Your task to perform on an android device: toggle airplane mode Image 0: 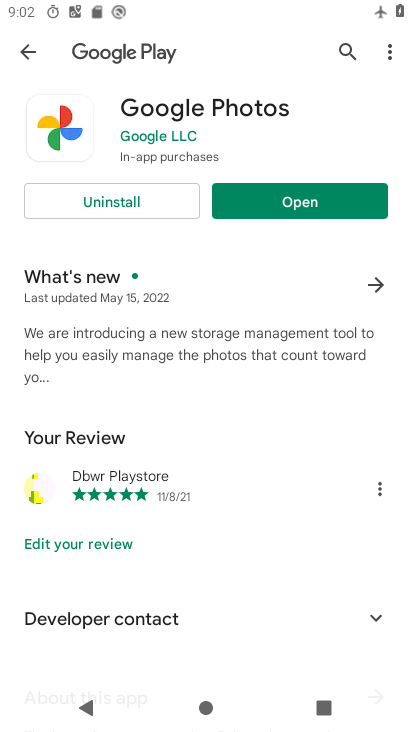
Step 0: press home button
Your task to perform on an android device: toggle airplane mode Image 1: 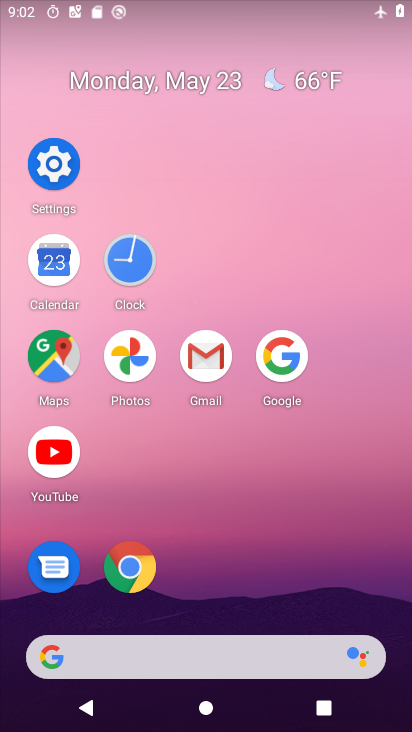
Step 1: click (70, 160)
Your task to perform on an android device: toggle airplane mode Image 2: 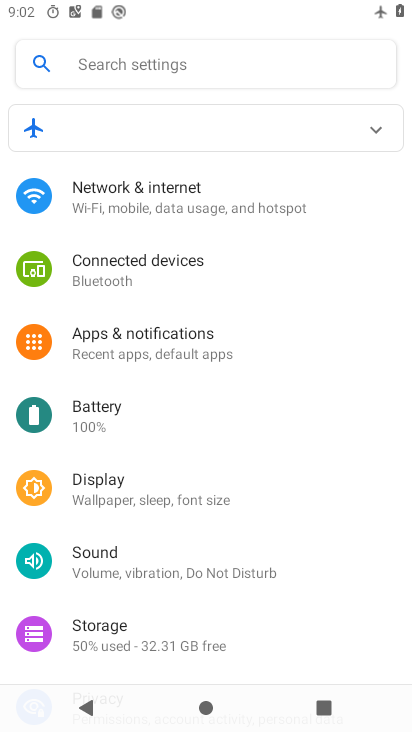
Step 2: click (101, 184)
Your task to perform on an android device: toggle airplane mode Image 3: 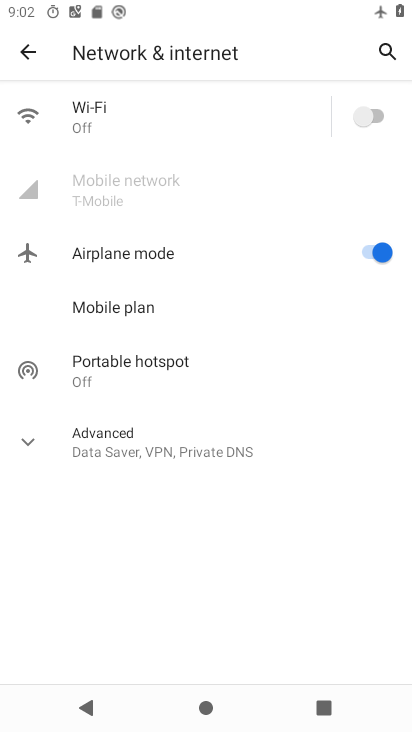
Step 3: click (375, 242)
Your task to perform on an android device: toggle airplane mode Image 4: 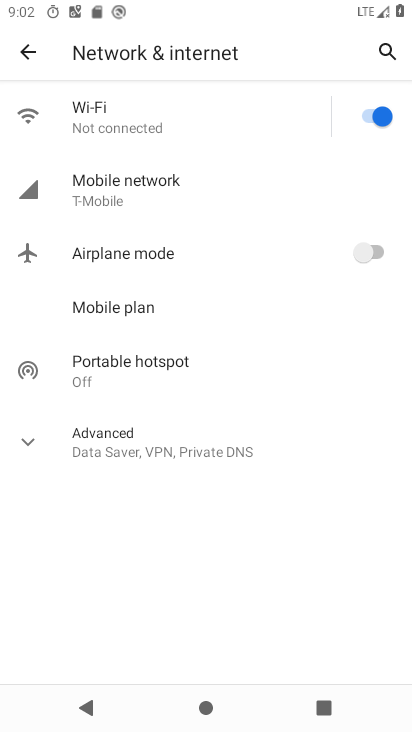
Step 4: task complete